Your task to perform on an android device: uninstall "Pandora - Music & Podcasts" Image 0: 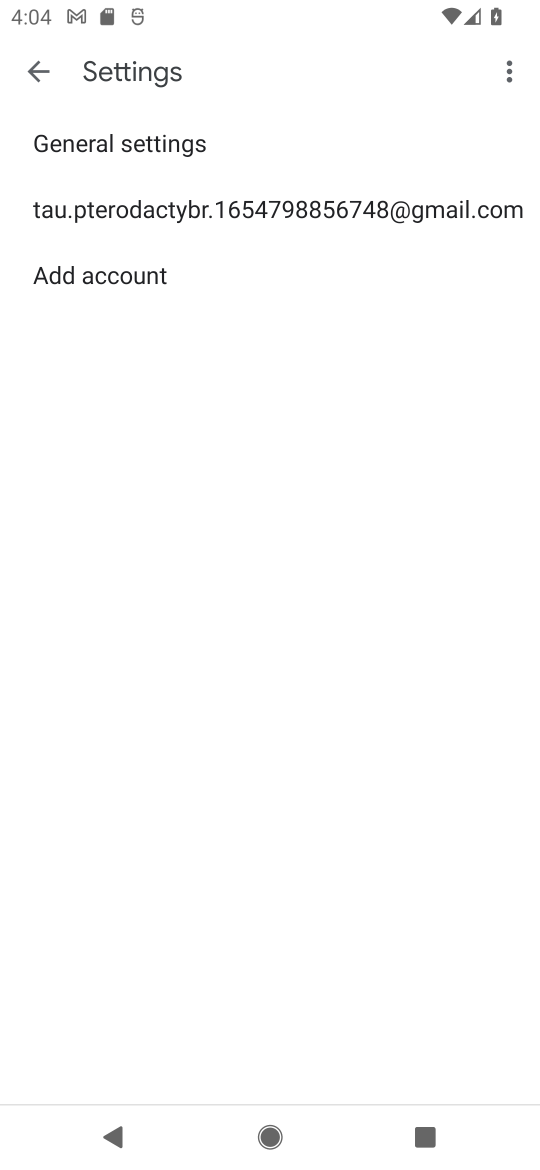
Step 0: press home button
Your task to perform on an android device: uninstall "Pandora - Music & Podcasts" Image 1: 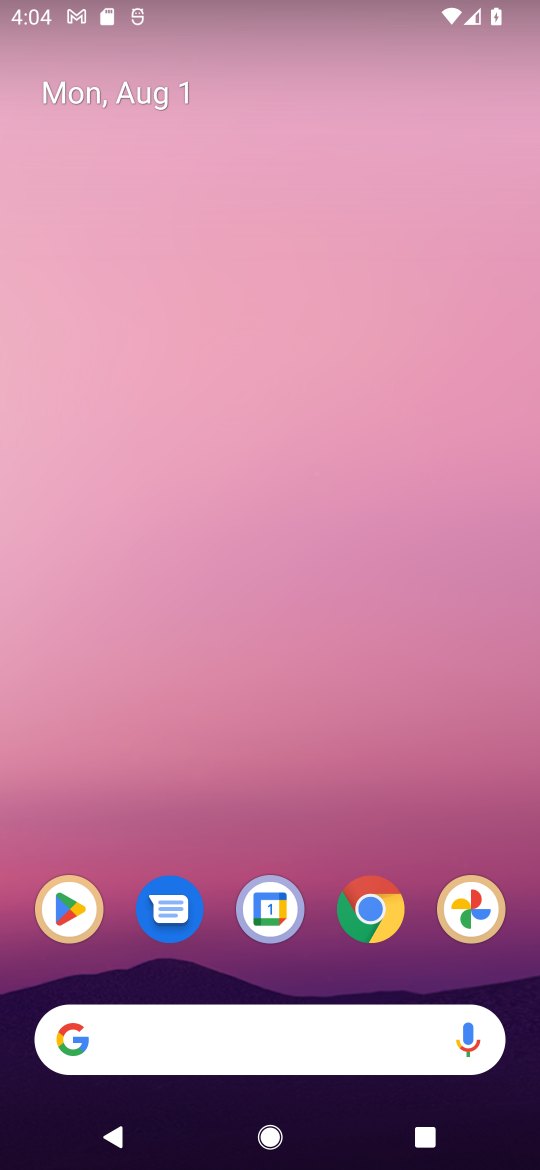
Step 1: click (71, 906)
Your task to perform on an android device: uninstall "Pandora - Music & Podcasts" Image 2: 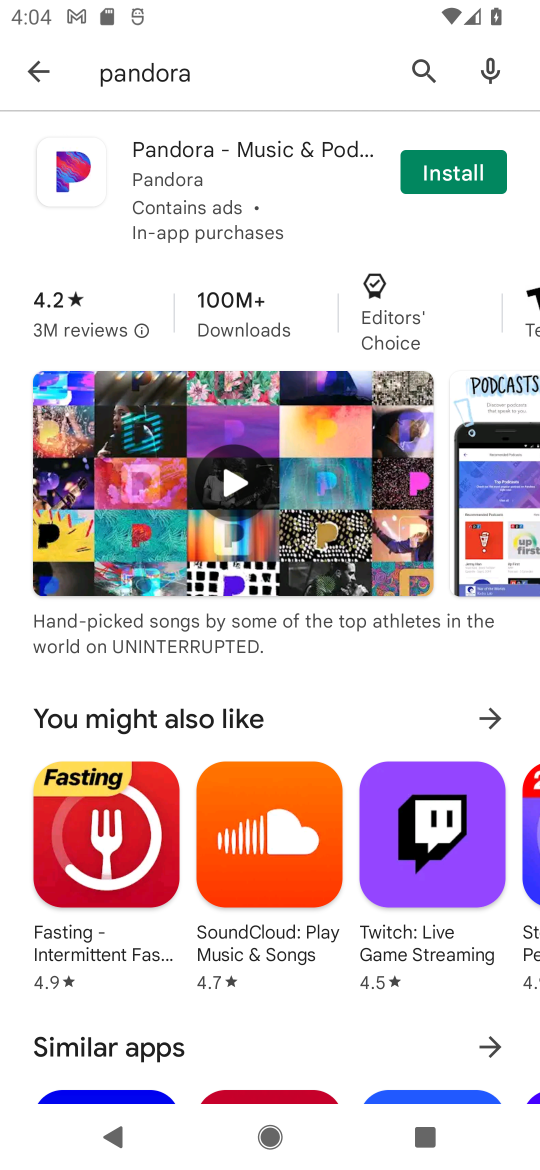
Step 2: task complete